Your task to perform on an android device: turn off wifi Image 0: 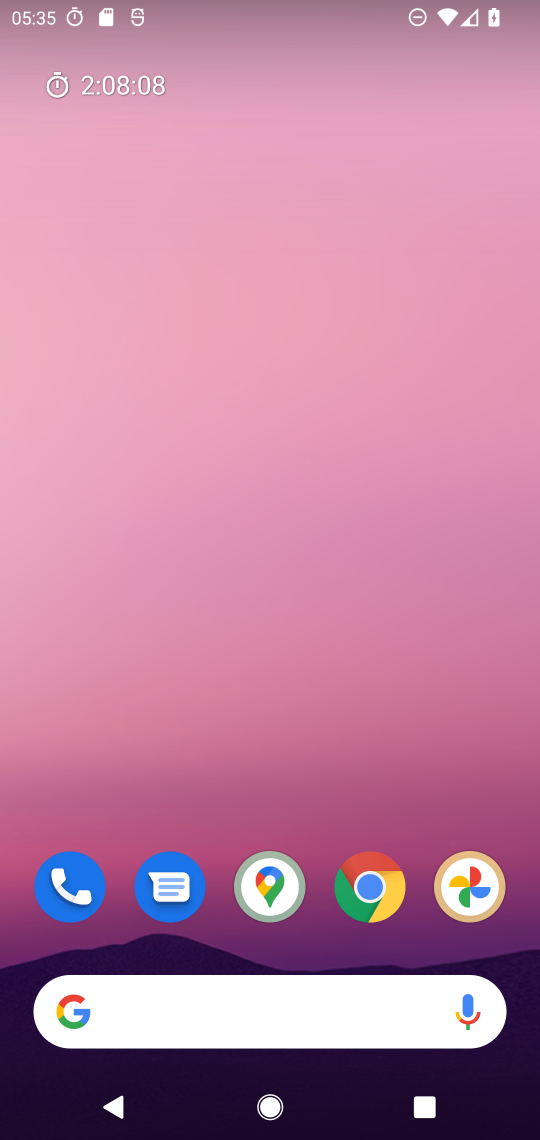
Step 0: press home button
Your task to perform on an android device: turn off wifi Image 1: 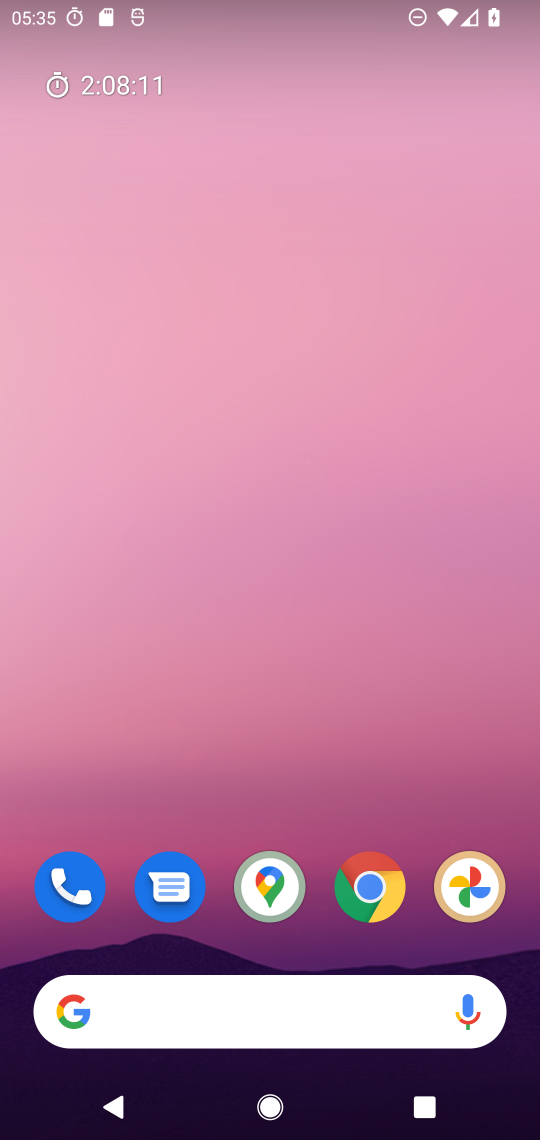
Step 1: drag from (404, 809) to (434, 220)
Your task to perform on an android device: turn off wifi Image 2: 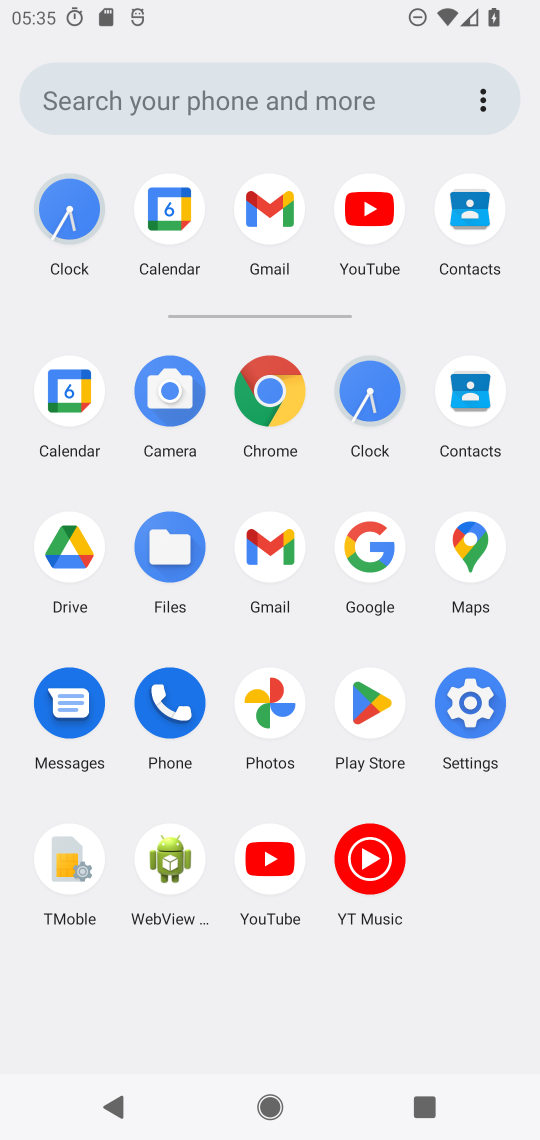
Step 2: click (476, 706)
Your task to perform on an android device: turn off wifi Image 3: 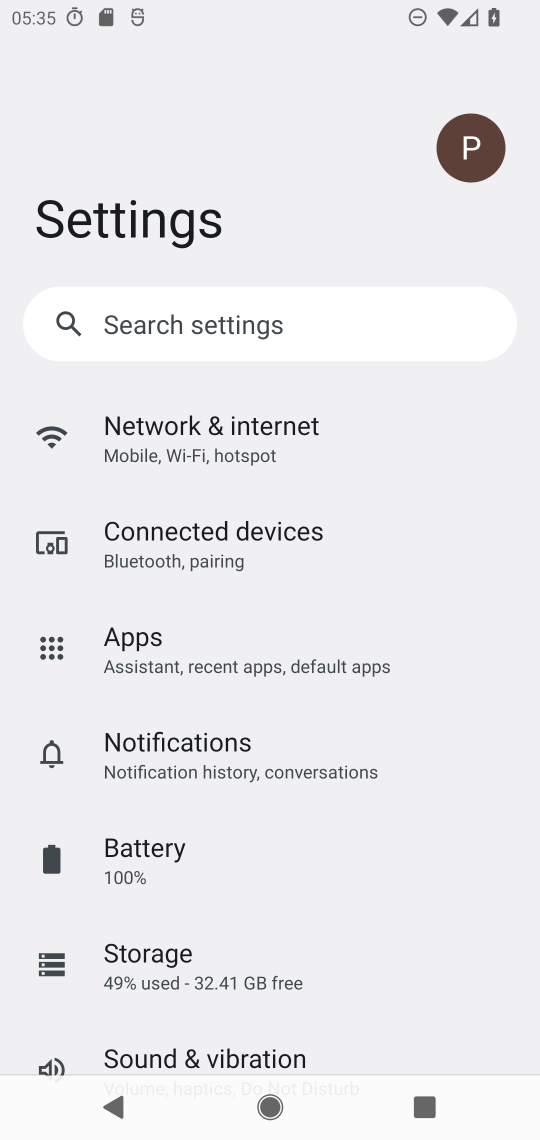
Step 3: drag from (429, 807) to (425, 658)
Your task to perform on an android device: turn off wifi Image 4: 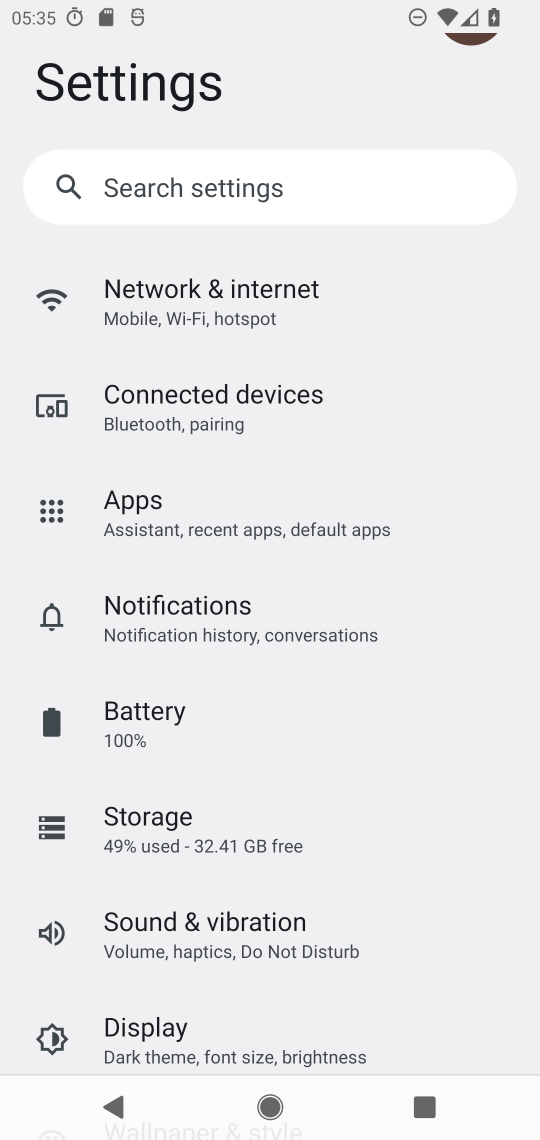
Step 4: drag from (459, 727) to (459, 625)
Your task to perform on an android device: turn off wifi Image 5: 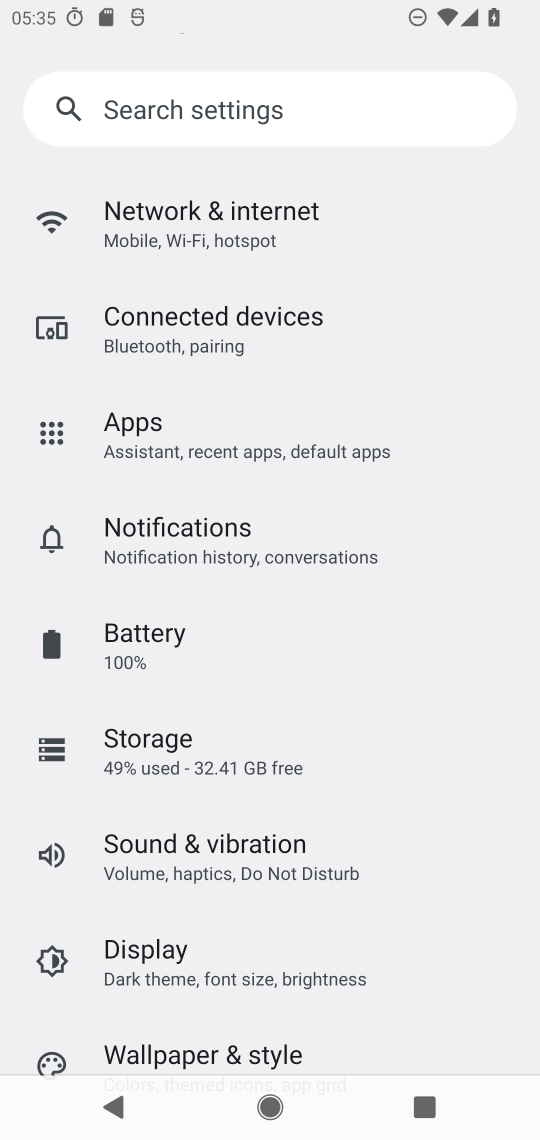
Step 5: click (216, 216)
Your task to perform on an android device: turn off wifi Image 6: 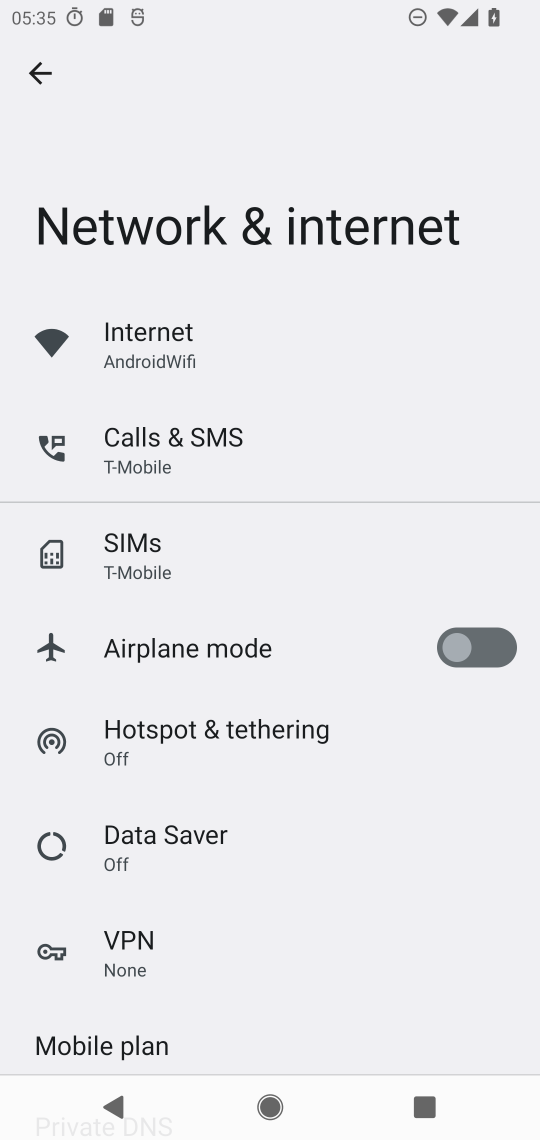
Step 6: click (168, 351)
Your task to perform on an android device: turn off wifi Image 7: 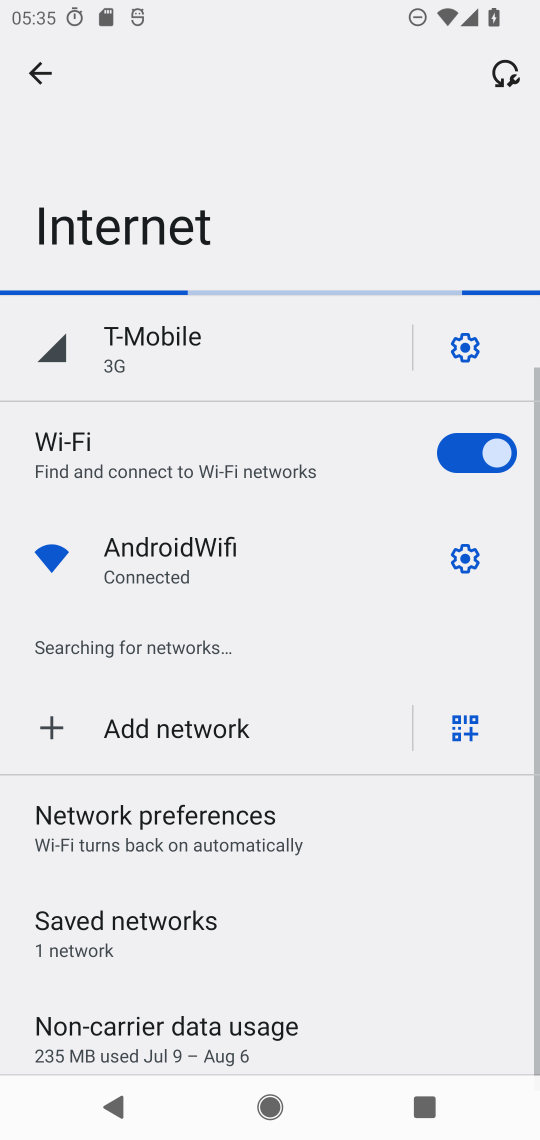
Step 7: click (484, 462)
Your task to perform on an android device: turn off wifi Image 8: 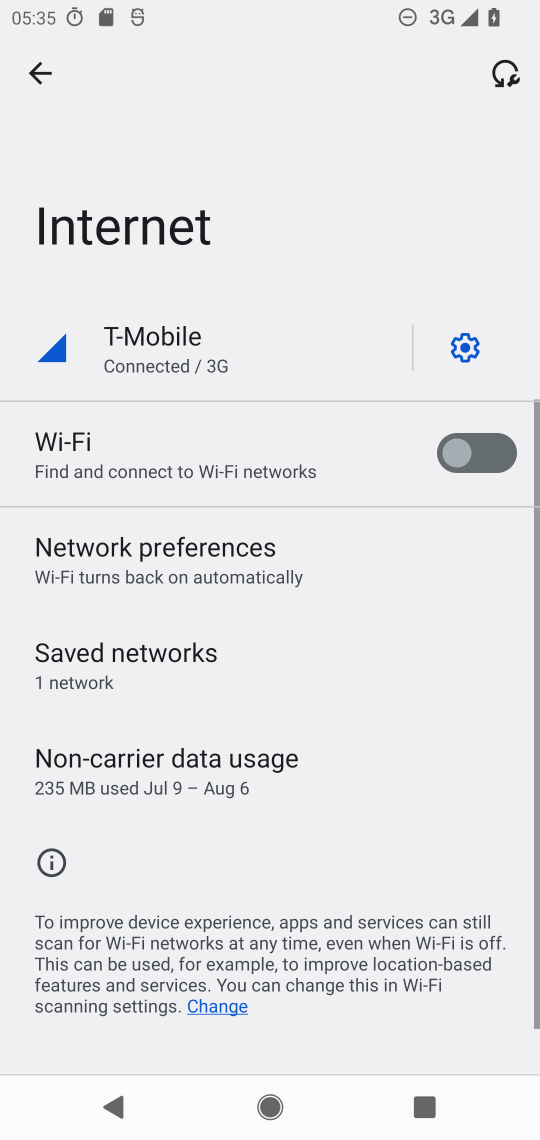
Step 8: task complete